Your task to perform on an android device: Go to Android settings Image 0: 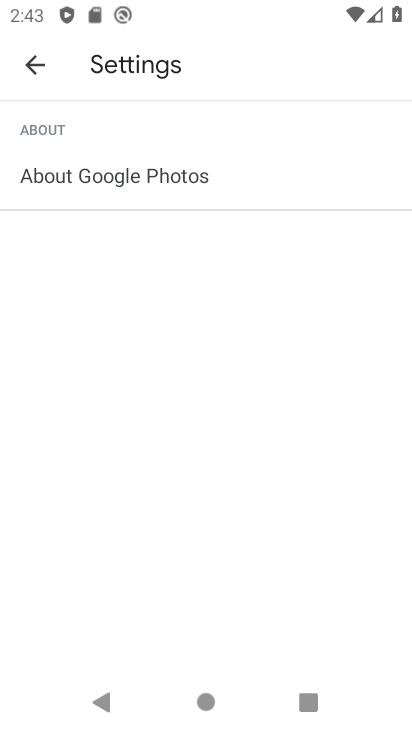
Step 0: press home button
Your task to perform on an android device: Go to Android settings Image 1: 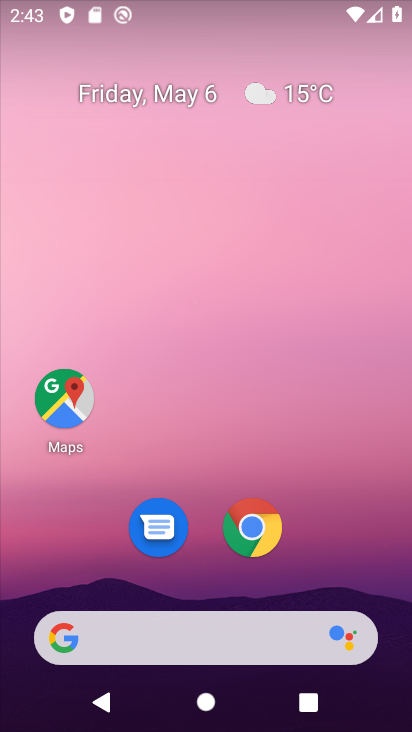
Step 1: drag from (125, 552) to (111, 250)
Your task to perform on an android device: Go to Android settings Image 2: 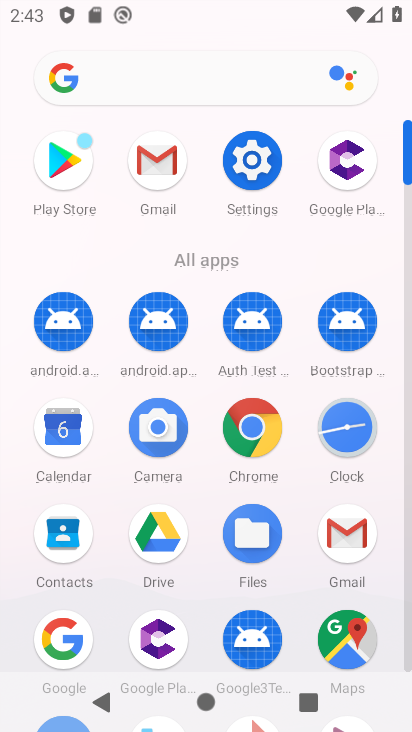
Step 2: click (248, 150)
Your task to perform on an android device: Go to Android settings Image 3: 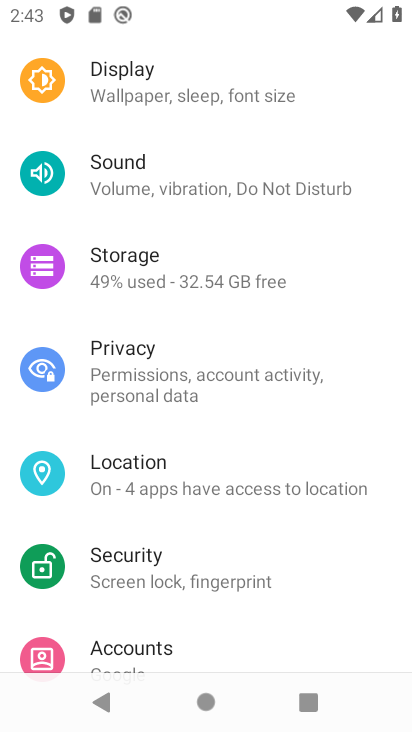
Step 3: drag from (221, 586) to (242, 245)
Your task to perform on an android device: Go to Android settings Image 4: 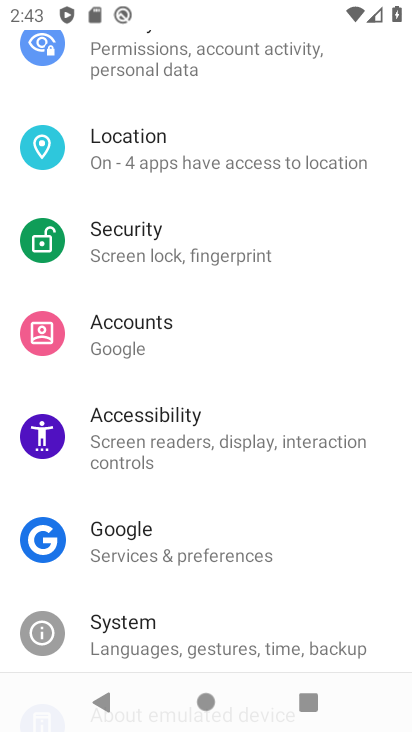
Step 4: drag from (228, 607) to (282, 262)
Your task to perform on an android device: Go to Android settings Image 5: 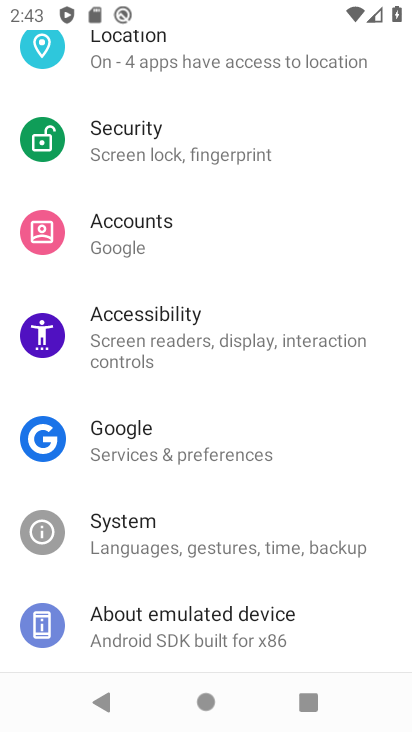
Step 5: click (167, 618)
Your task to perform on an android device: Go to Android settings Image 6: 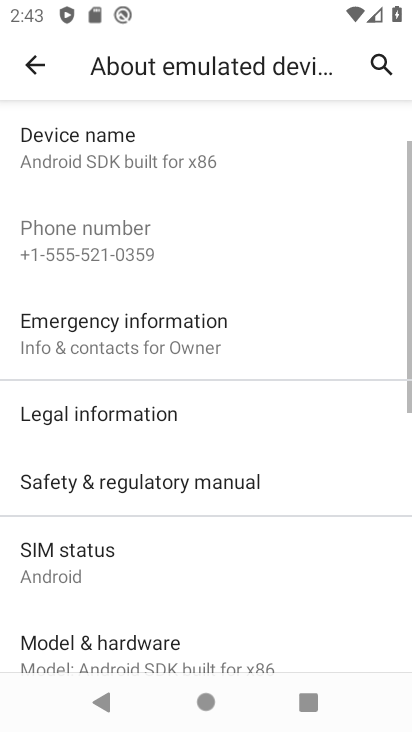
Step 6: drag from (125, 575) to (163, 319)
Your task to perform on an android device: Go to Android settings Image 7: 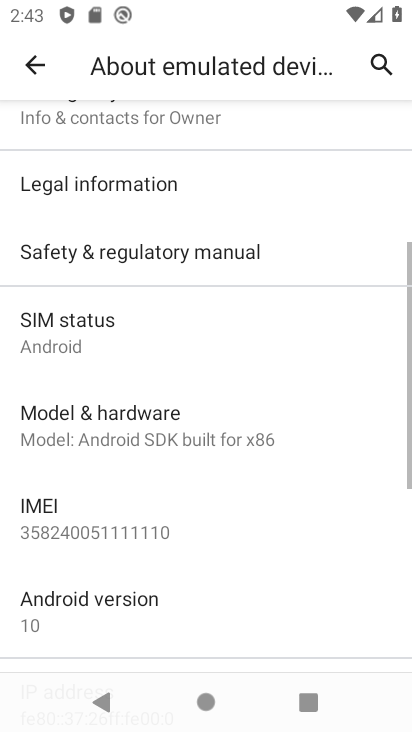
Step 7: click (192, 604)
Your task to perform on an android device: Go to Android settings Image 8: 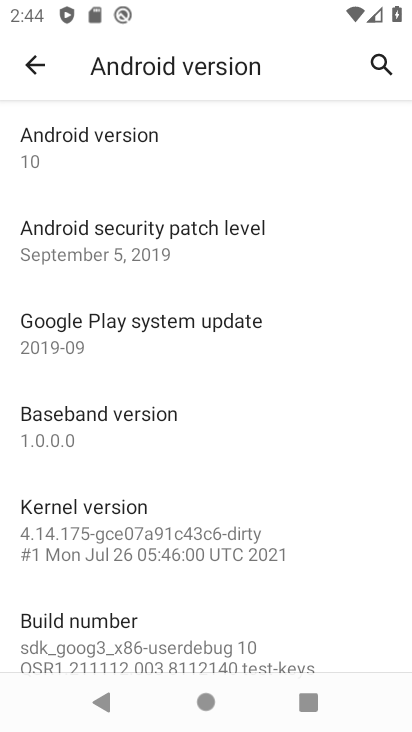
Step 8: task complete